Your task to perform on an android device: Go to Wikipedia Image 0: 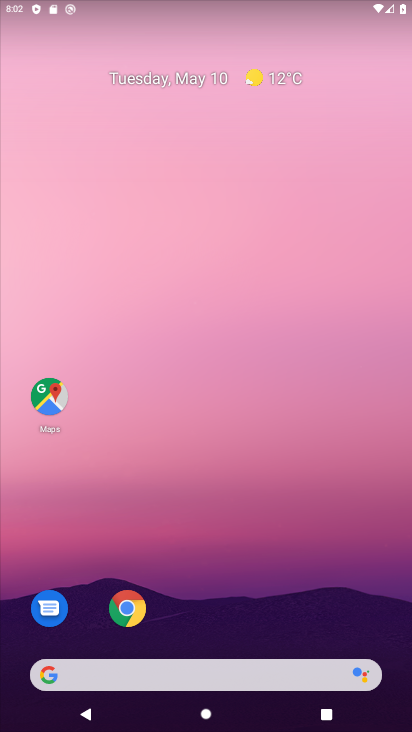
Step 0: click (123, 619)
Your task to perform on an android device: Go to Wikipedia Image 1: 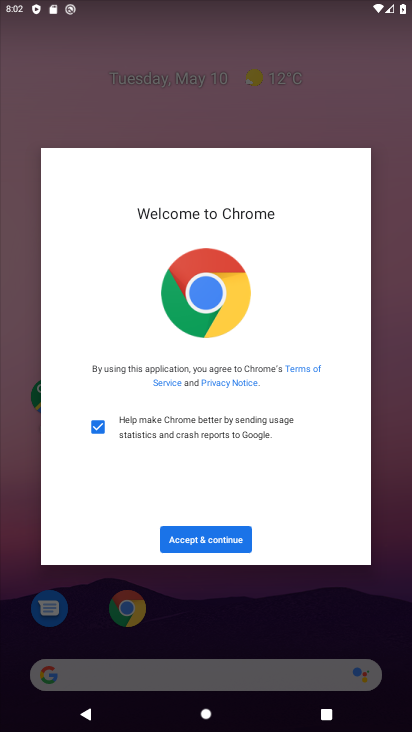
Step 1: click (228, 543)
Your task to perform on an android device: Go to Wikipedia Image 2: 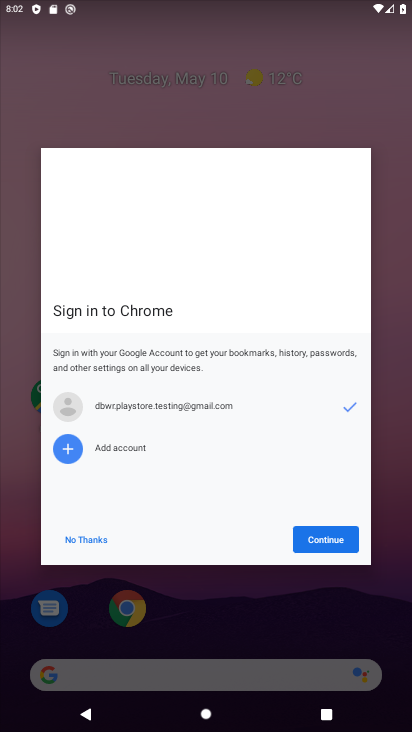
Step 2: click (299, 542)
Your task to perform on an android device: Go to Wikipedia Image 3: 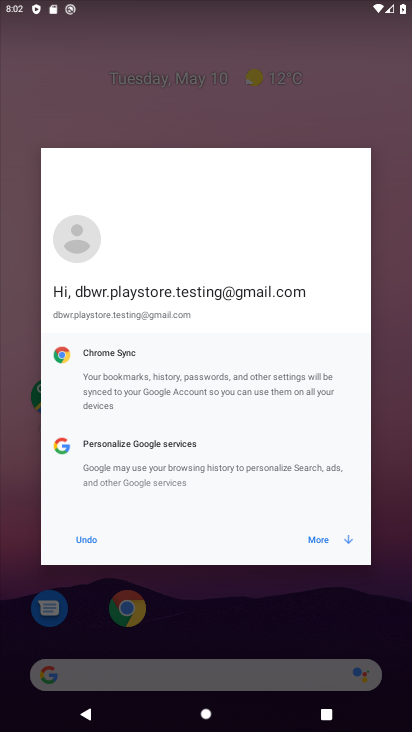
Step 3: click (310, 541)
Your task to perform on an android device: Go to Wikipedia Image 4: 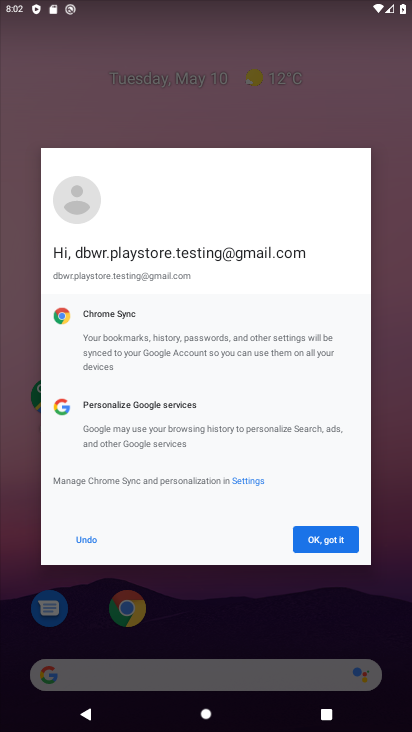
Step 4: click (310, 541)
Your task to perform on an android device: Go to Wikipedia Image 5: 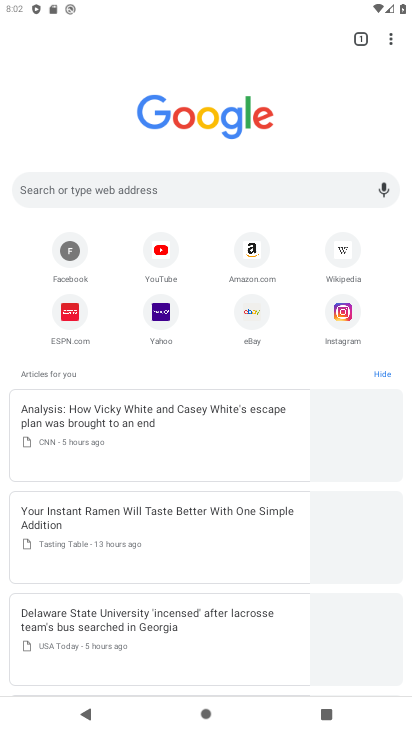
Step 5: click (336, 264)
Your task to perform on an android device: Go to Wikipedia Image 6: 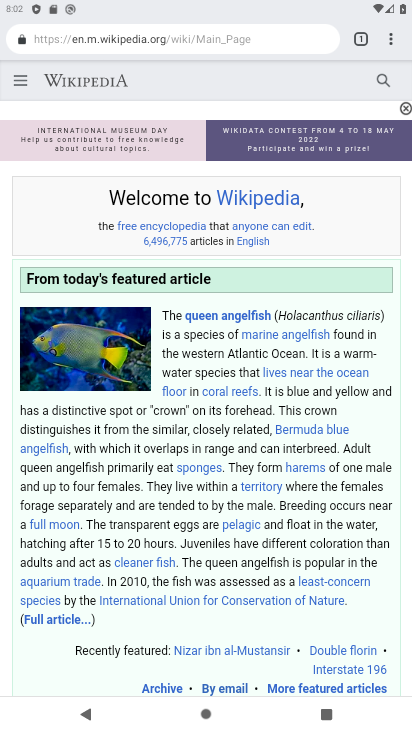
Step 6: task complete